Your task to perform on an android device: turn off location Image 0: 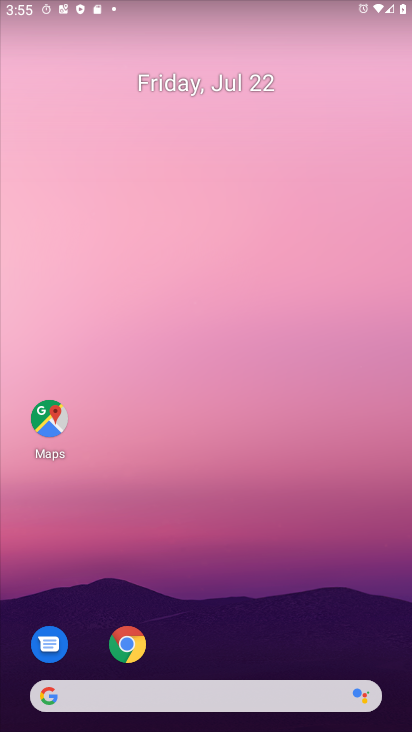
Step 0: press home button
Your task to perform on an android device: turn off location Image 1: 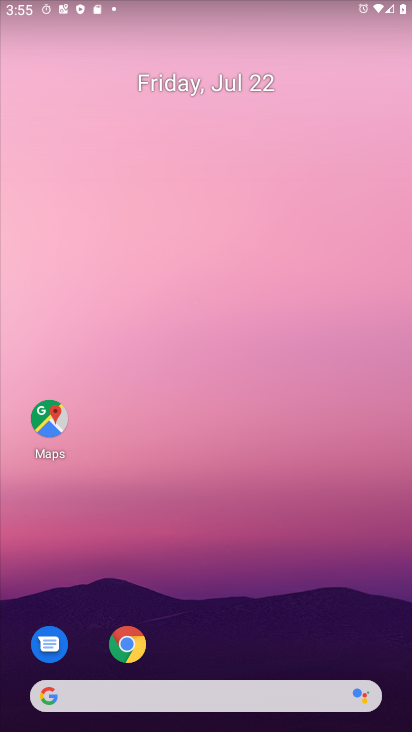
Step 1: drag from (228, 531) to (225, 52)
Your task to perform on an android device: turn off location Image 2: 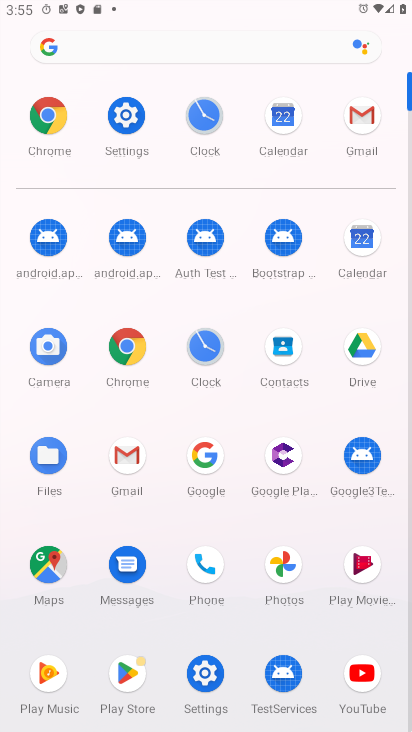
Step 2: click (124, 103)
Your task to perform on an android device: turn off location Image 3: 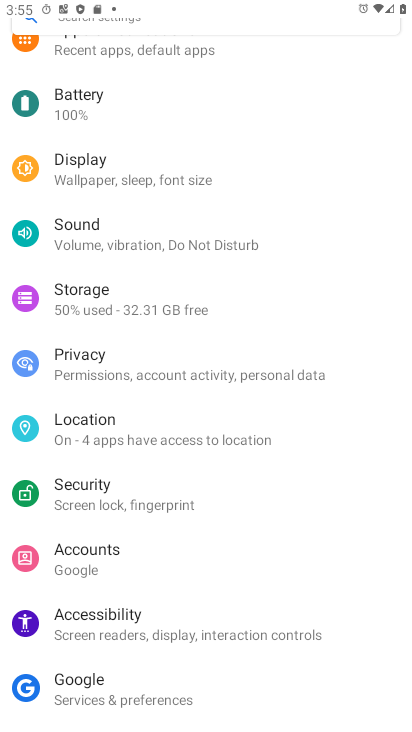
Step 3: click (81, 426)
Your task to perform on an android device: turn off location Image 4: 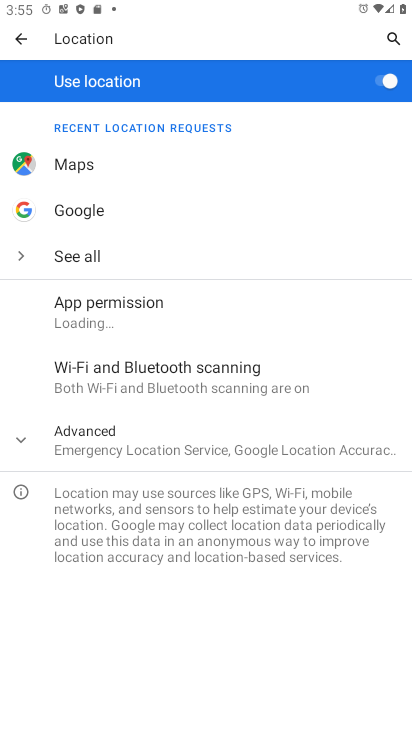
Step 4: click (390, 78)
Your task to perform on an android device: turn off location Image 5: 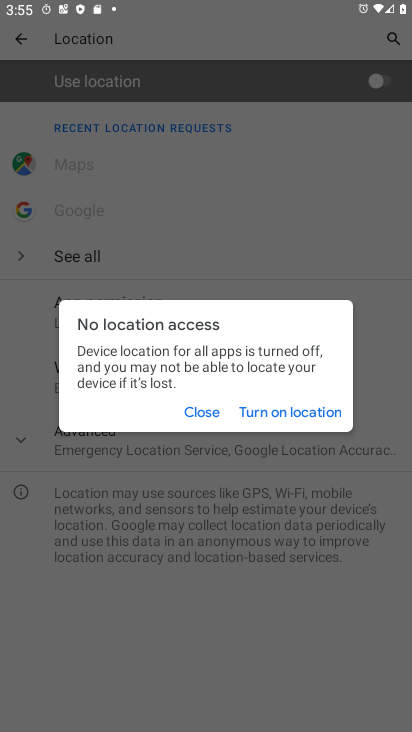
Step 5: task complete